Your task to perform on an android device: all mails in gmail Image 0: 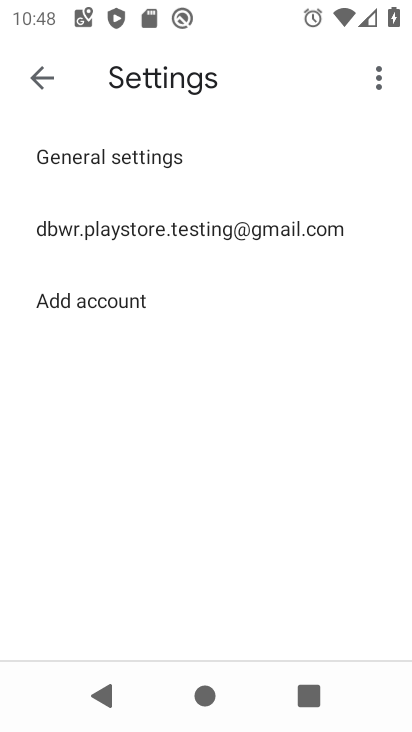
Step 0: press home button
Your task to perform on an android device: all mails in gmail Image 1: 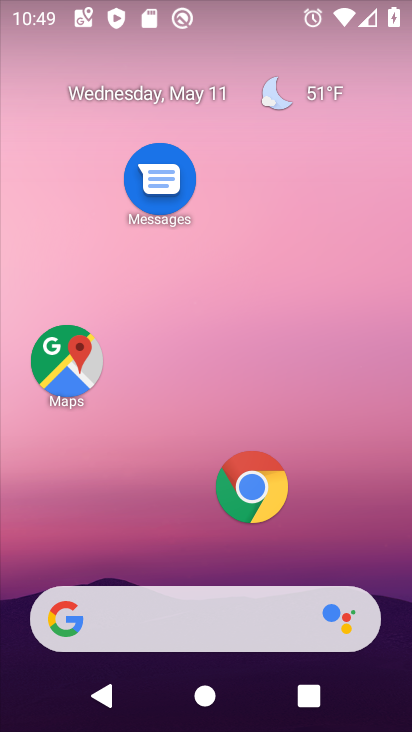
Step 1: drag from (185, 537) to (234, 215)
Your task to perform on an android device: all mails in gmail Image 2: 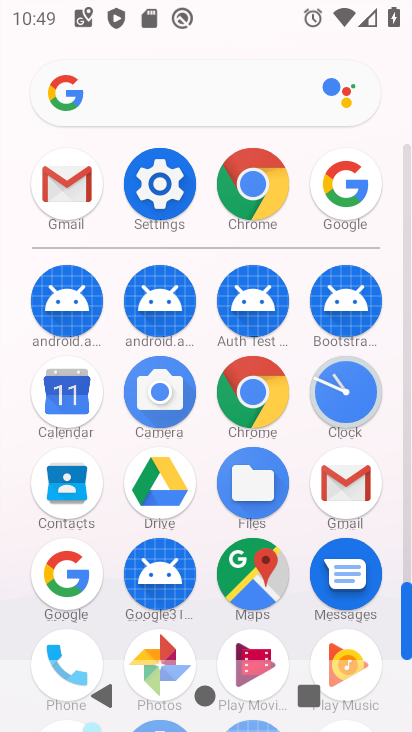
Step 2: click (42, 177)
Your task to perform on an android device: all mails in gmail Image 3: 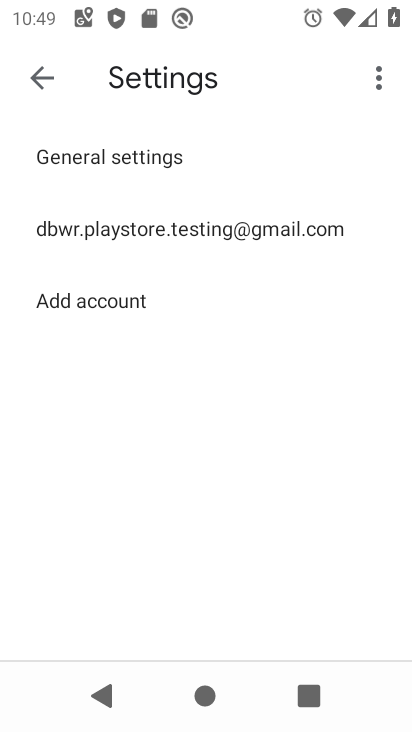
Step 3: click (48, 72)
Your task to perform on an android device: all mails in gmail Image 4: 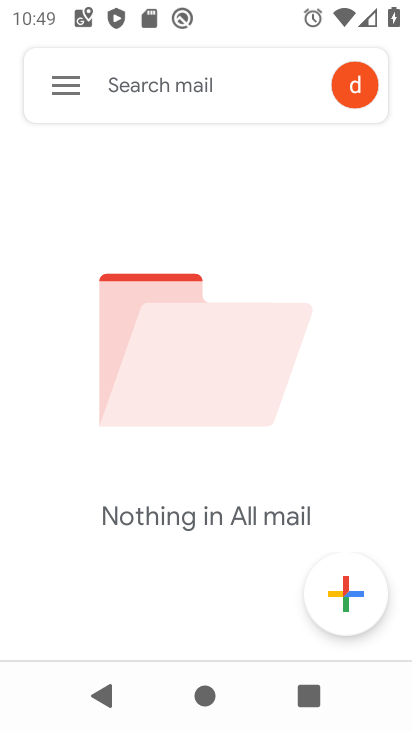
Step 4: click (48, 72)
Your task to perform on an android device: all mails in gmail Image 5: 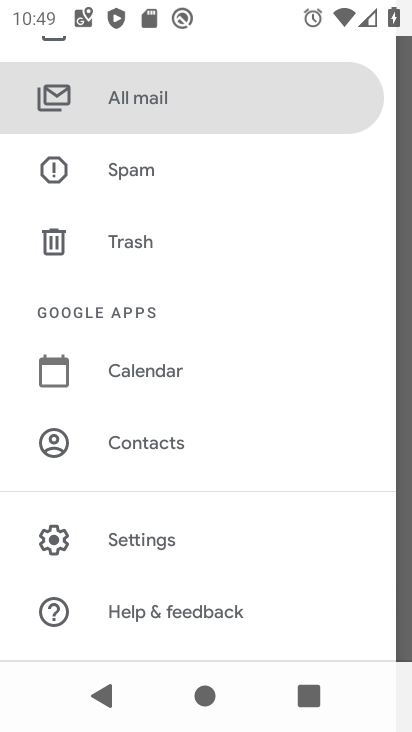
Step 5: click (148, 102)
Your task to perform on an android device: all mails in gmail Image 6: 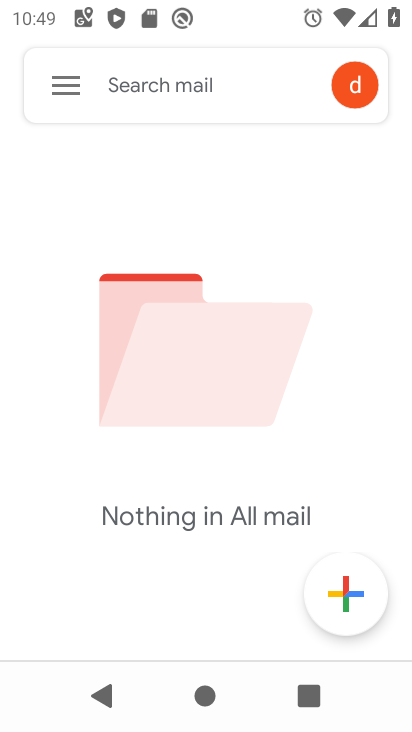
Step 6: task complete